Your task to perform on an android device: Search for the best books on Goodreads. Image 0: 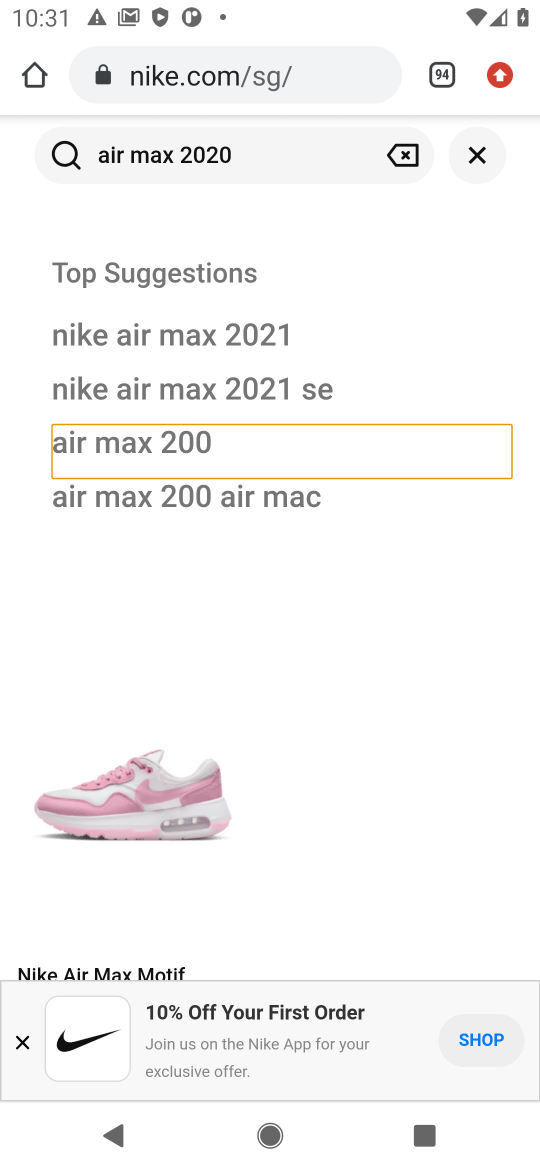
Step 0: press home button
Your task to perform on an android device: Search for the best books on Goodreads. Image 1: 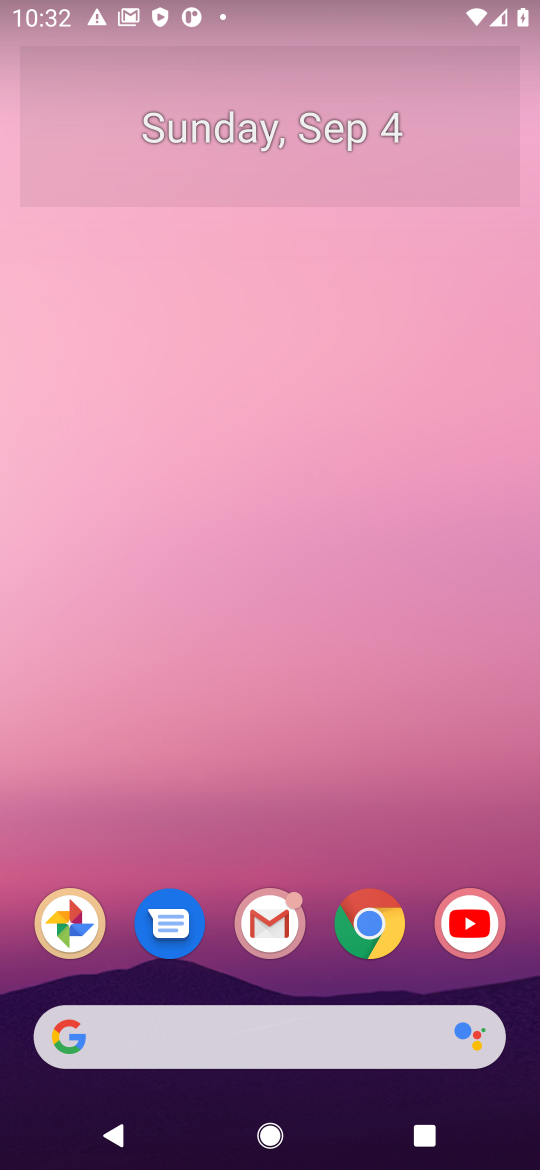
Step 1: click (373, 1027)
Your task to perform on an android device: Search for the best books on Goodreads. Image 2: 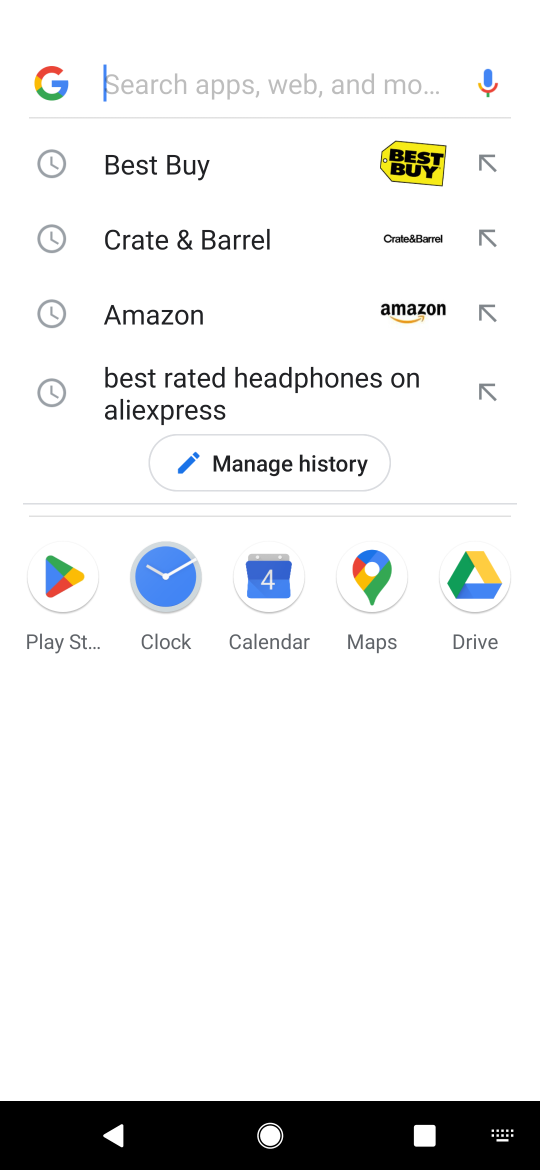
Step 2: press enter
Your task to perform on an android device: Search for the best books on Goodreads. Image 3: 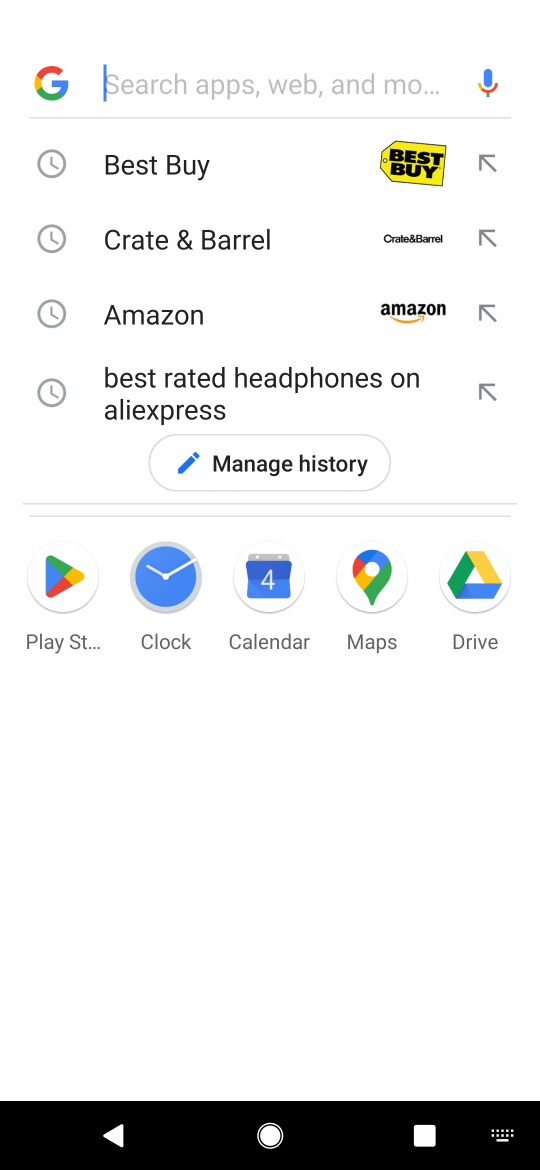
Step 3: type "goodreads"
Your task to perform on an android device: Search for the best books on Goodreads. Image 4: 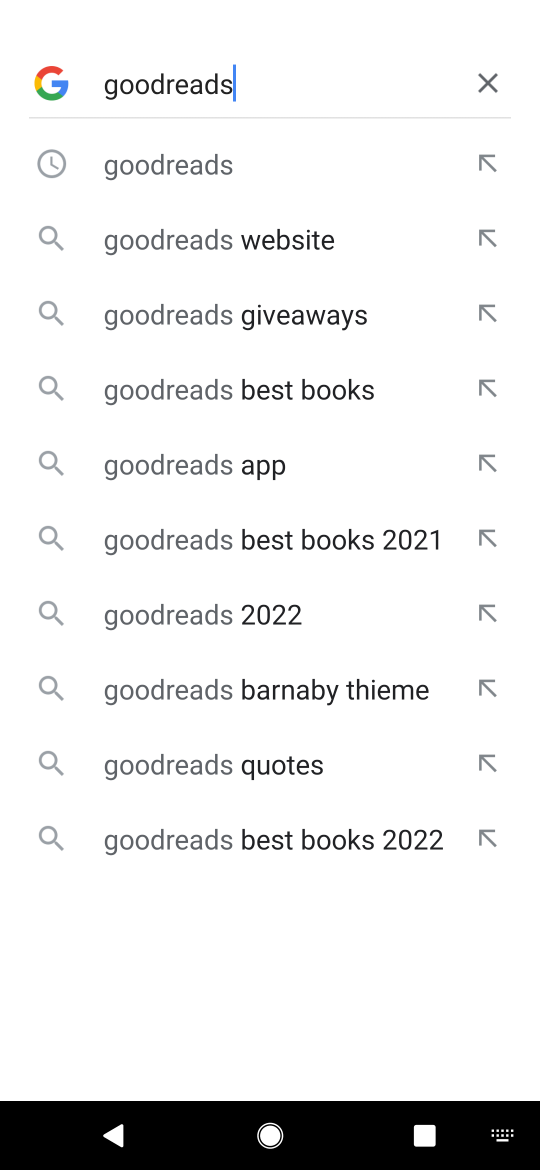
Step 4: click (188, 158)
Your task to perform on an android device: Search for the best books on Goodreads. Image 5: 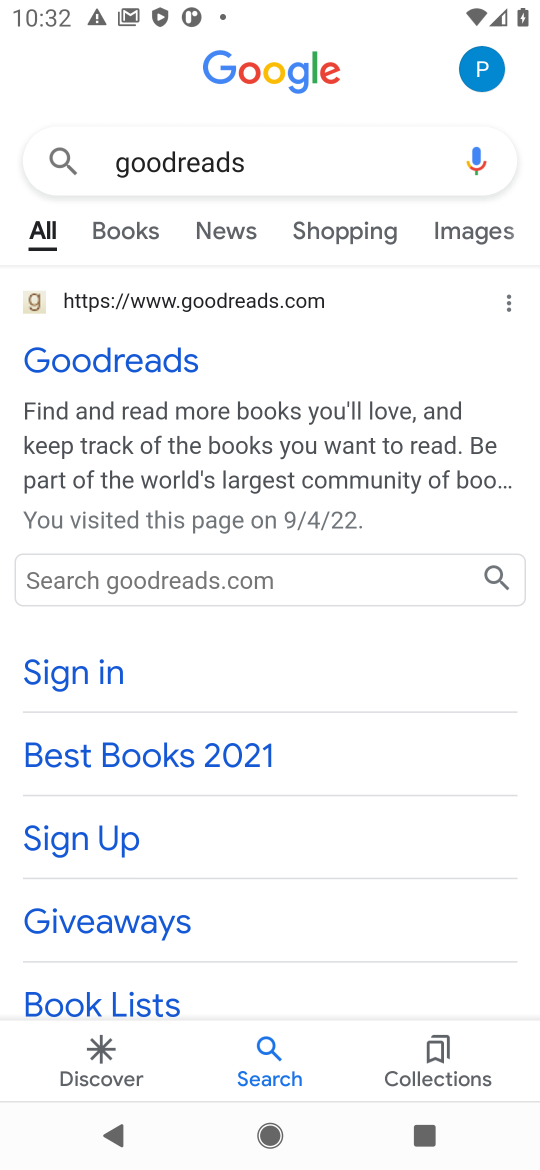
Step 5: click (101, 365)
Your task to perform on an android device: Search for the best books on Goodreads. Image 6: 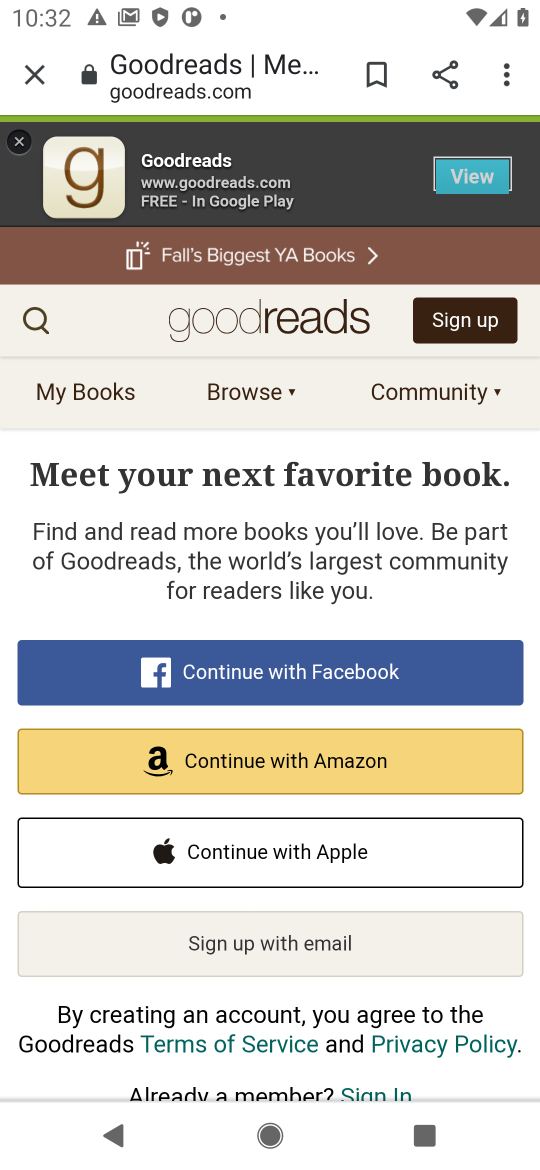
Step 6: click (59, 317)
Your task to perform on an android device: Search for the best books on Goodreads. Image 7: 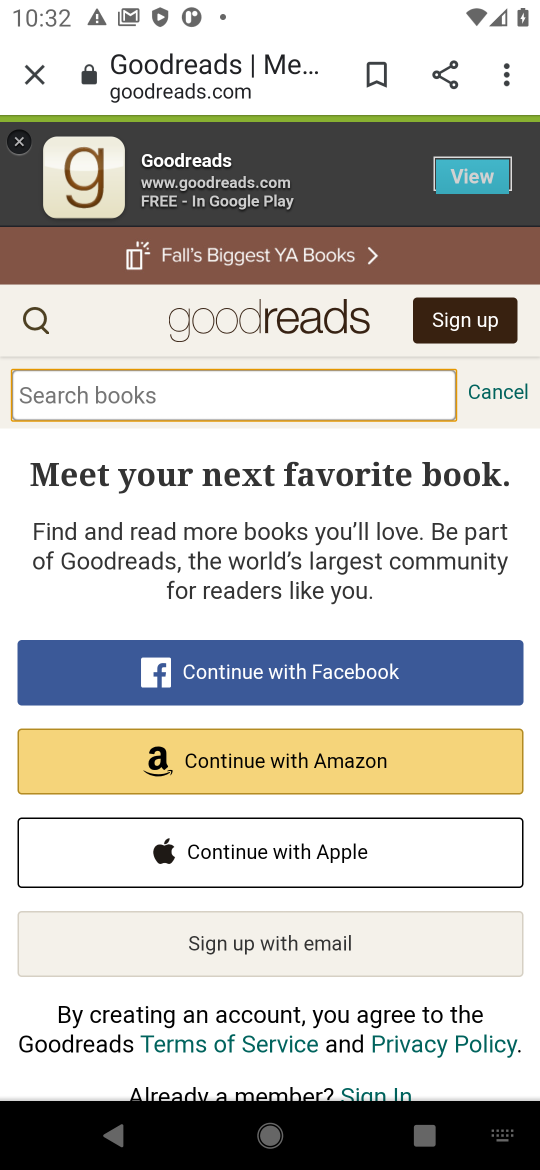
Step 7: press enter
Your task to perform on an android device: Search for the best books on Goodreads. Image 8: 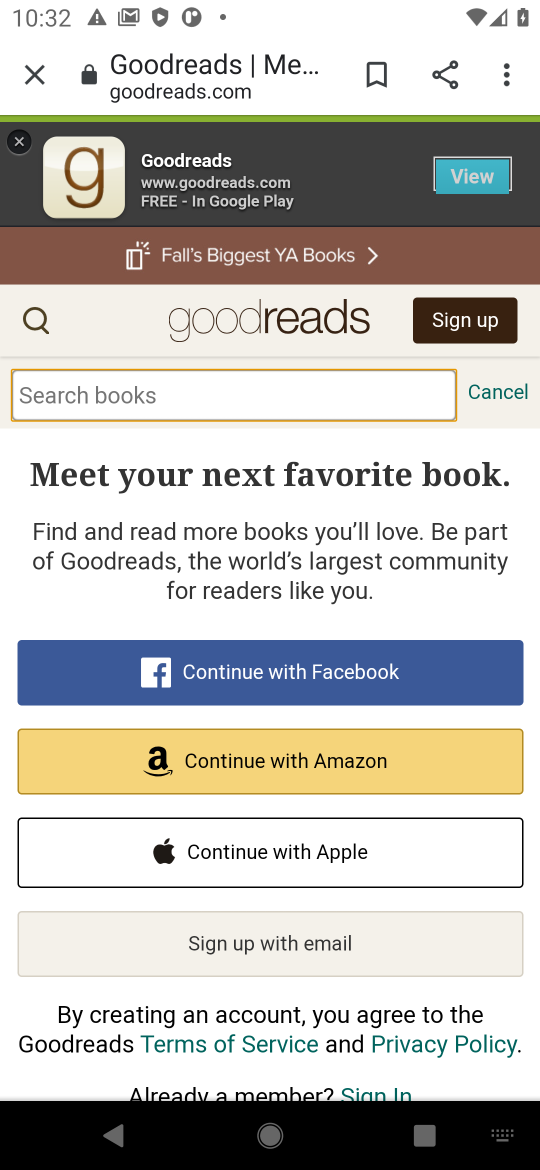
Step 8: type "bestbooks"
Your task to perform on an android device: Search for the best books on Goodreads. Image 9: 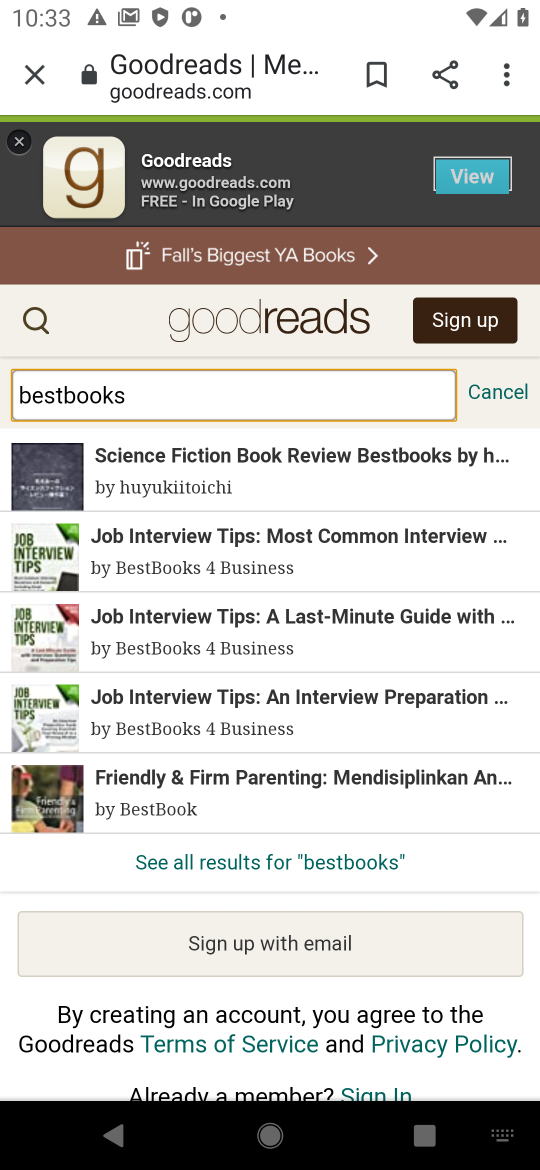
Step 9: task complete